Your task to perform on an android device: allow cookies in the chrome app Image 0: 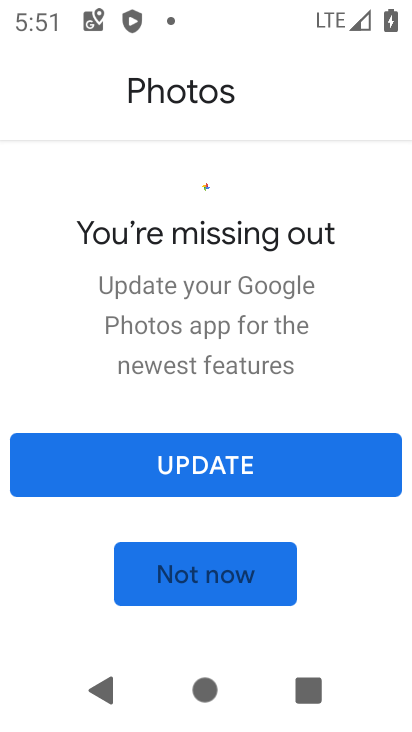
Step 0: press home button
Your task to perform on an android device: allow cookies in the chrome app Image 1: 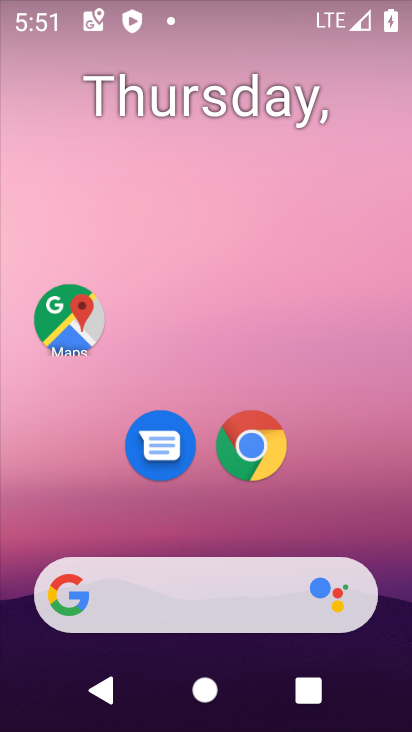
Step 1: click (258, 438)
Your task to perform on an android device: allow cookies in the chrome app Image 2: 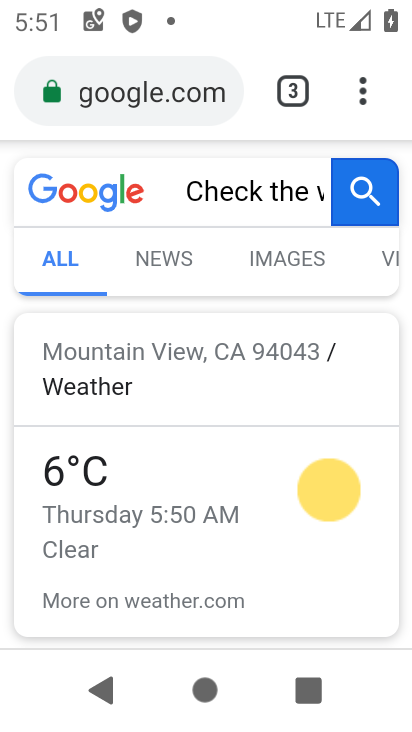
Step 2: drag from (358, 92) to (215, 482)
Your task to perform on an android device: allow cookies in the chrome app Image 3: 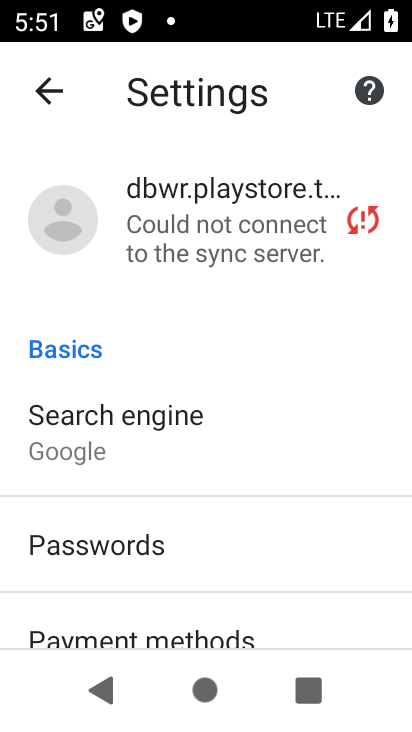
Step 3: drag from (279, 529) to (285, 201)
Your task to perform on an android device: allow cookies in the chrome app Image 4: 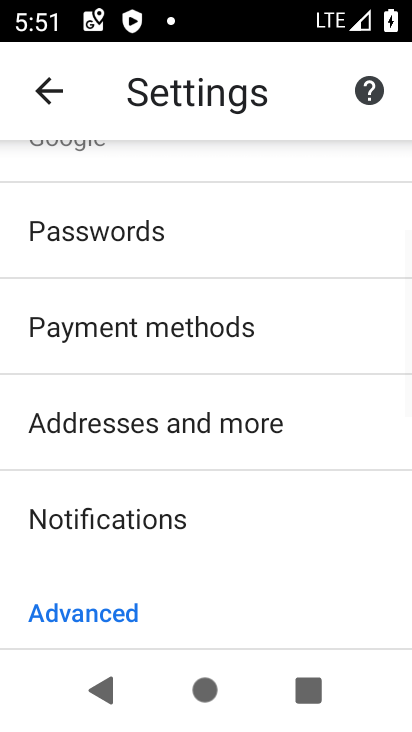
Step 4: drag from (290, 558) to (305, 243)
Your task to perform on an android device: allow cookies in the chrome app Image 5: 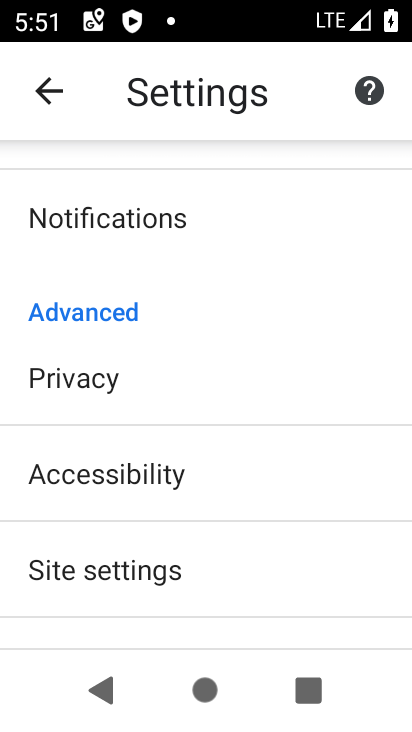
Step 5: click (160, 569)
Your task to perform on an android device: allow cookies in the chrome app Image 6: 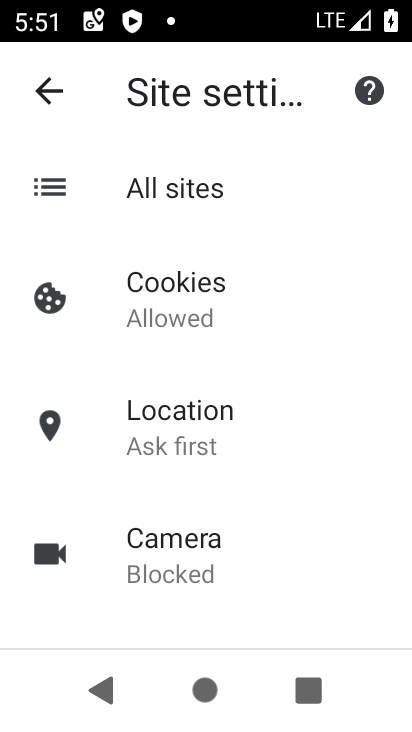
Step 6: click (266, 523)
Your task to perform on an android device: allow cookies in the chrome app Image 7: 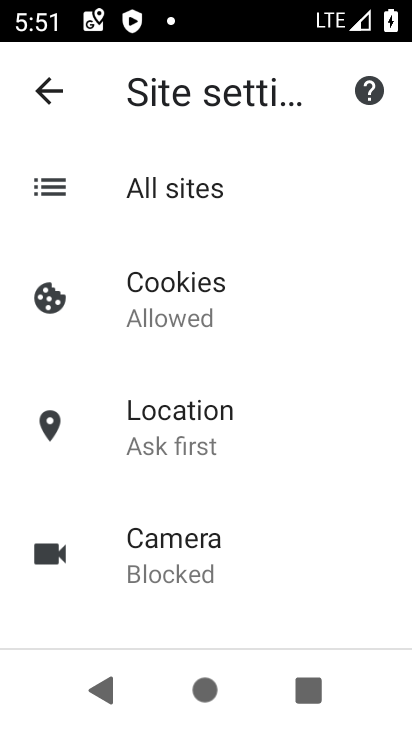
Step 7: click (179, 292)
Your task to perform on an android device: allow cookies in the chrome app Image 8: 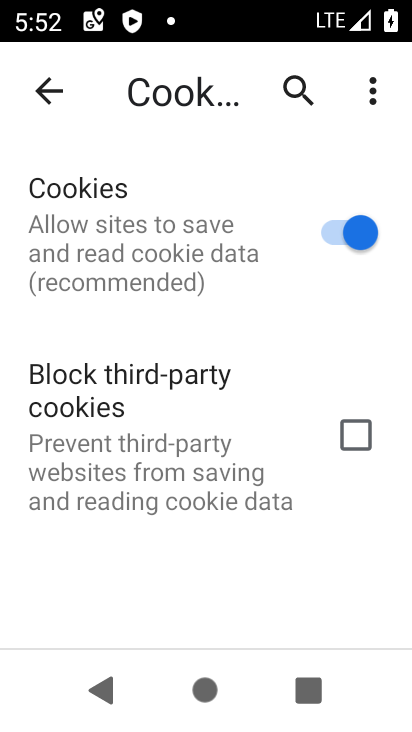
Step 8: task complete